Your task to perform on an android device: turn on notifications settings in the gmail app Image 0: 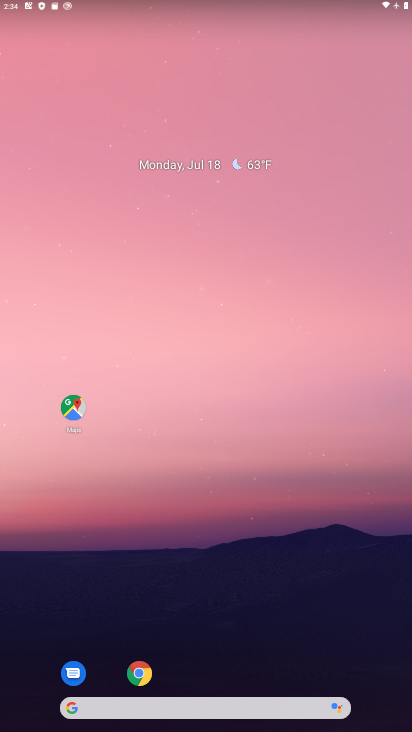
Step 0: press home button
Your task to perform on an android device: turn on notifications settings in the gmail app Image 1: 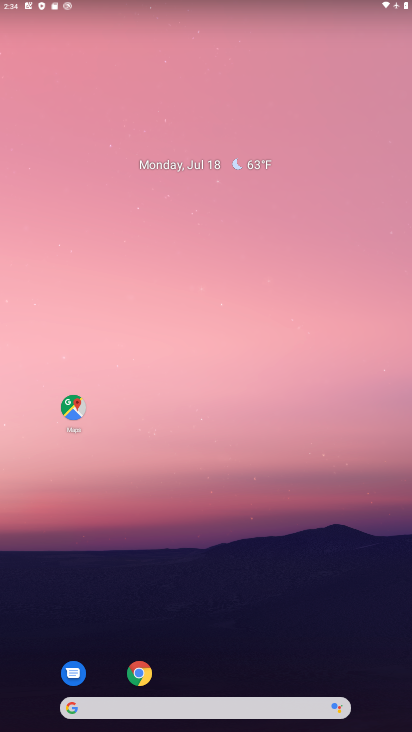
Step 1: drag from (216, 669) to (283, 236)
Your task to perform on an android device: turn on notifications settings in the gmail app Image 2: 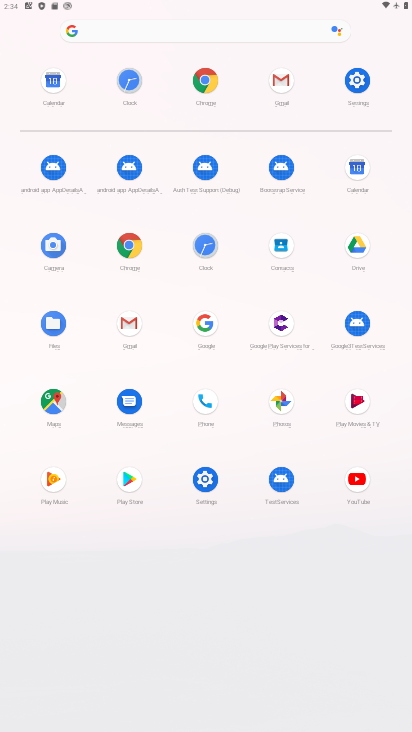
Step 2: click (282, 79)
Your task to perform on an android device: turn on notifications settings in the gmail app Image 3: 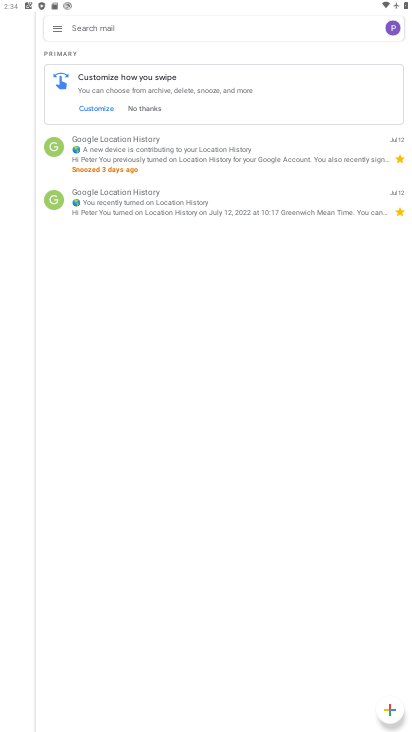
Step 3: click (56, 28)
Your task to perform on an android device: turn on notifications settings in the gmail app Image 4: 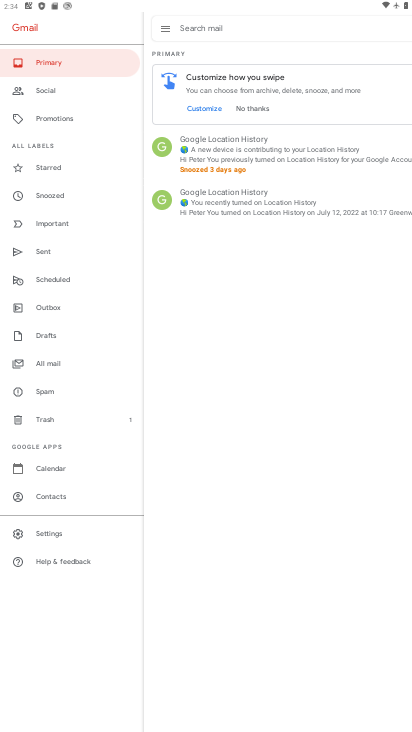
Step 4: click (53, 473)
Your task to perform on an android device: turn on notifications settings in the gmail app Image 5: 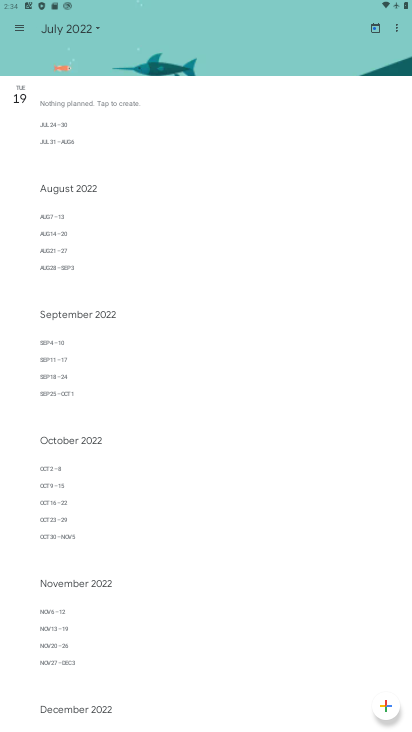
Step 5: press home button
Your task to perform on an android device: turn on notifications settings in the gmail app Image 6: 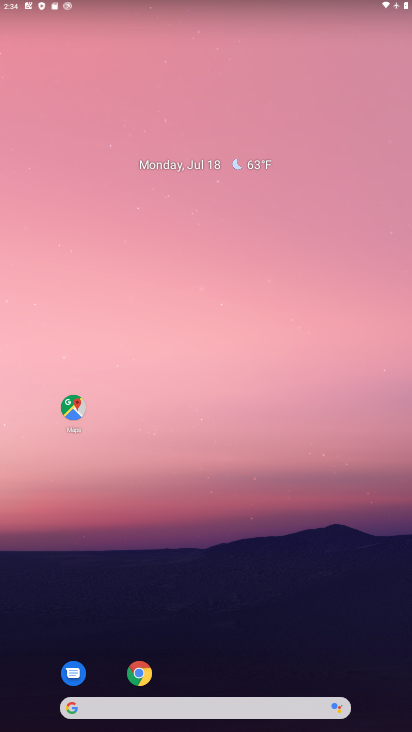
Step 6: drag from (171, 583) to (176, 238)
Your task to perform on an android device: turn on notifications settings in the gmail app Image 7: 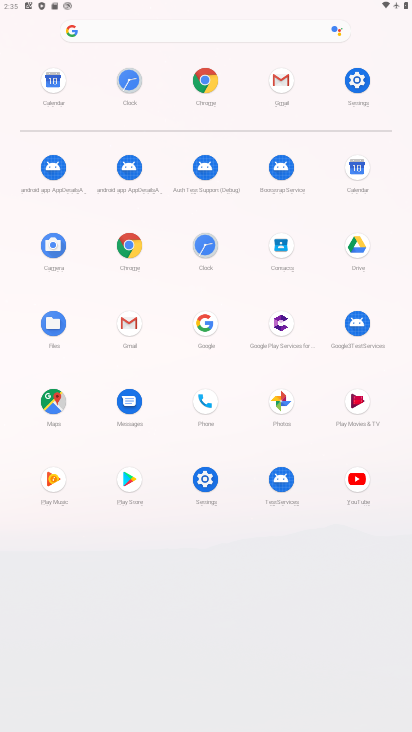
Step 7: click (276, 79)
Your task to perform on an android device: turn on notifications settings in the gmail app Image 8: 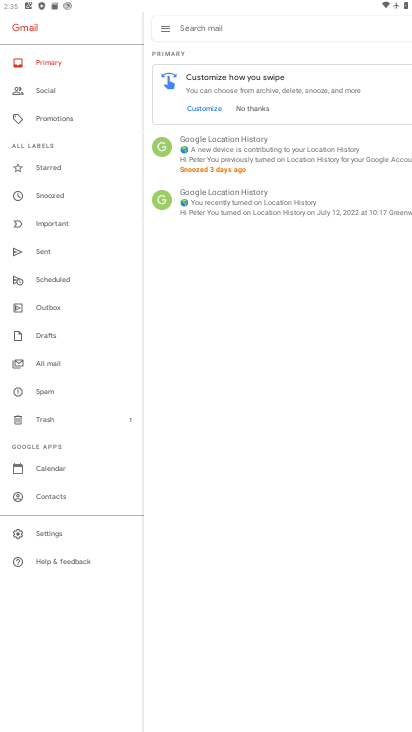
Step 8: click (48, 535)
Your task to perform on an android device: turn on notifications settings in the gmail app Image 9: 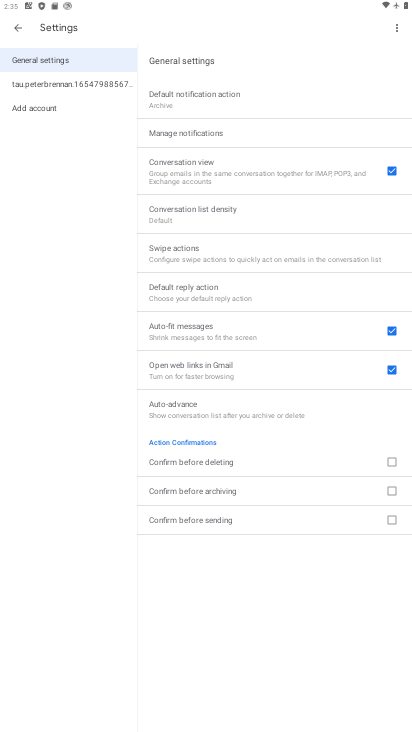
Step 9: click (35, 78)
Your task to perform on an android device: turn on notifications settings in the gmail app Image 10: 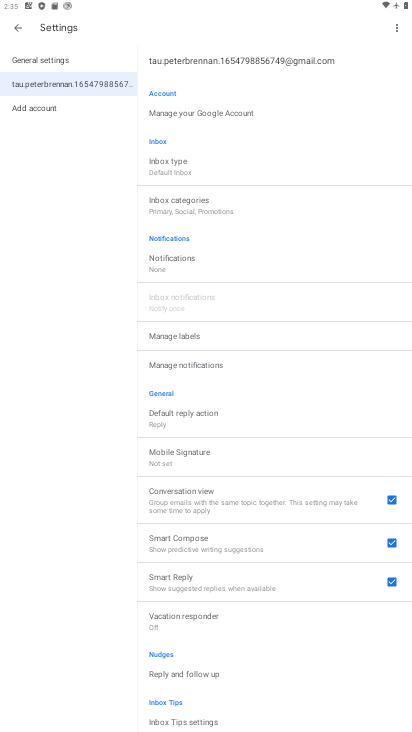
Step 10: click (184, 265)
Your task to perform on an android device: turn on notifications settings in the gmail app Image 11: 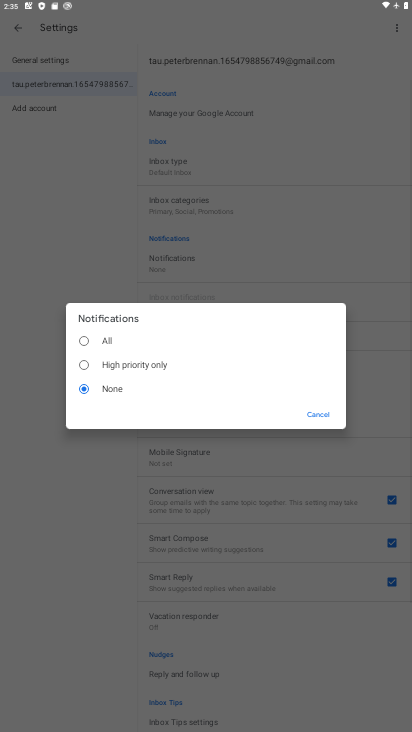
Step 11: click (84, 336)
Your task to perform on an android device: turn on notifications settings in the gmail app Image 12: 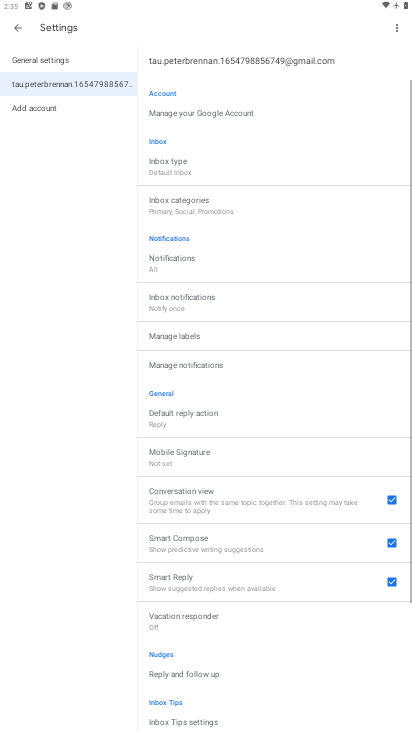
Step 12: task complete